Your task to perform on an android device: Search for vegetarian restaurants on Maps Image 0: 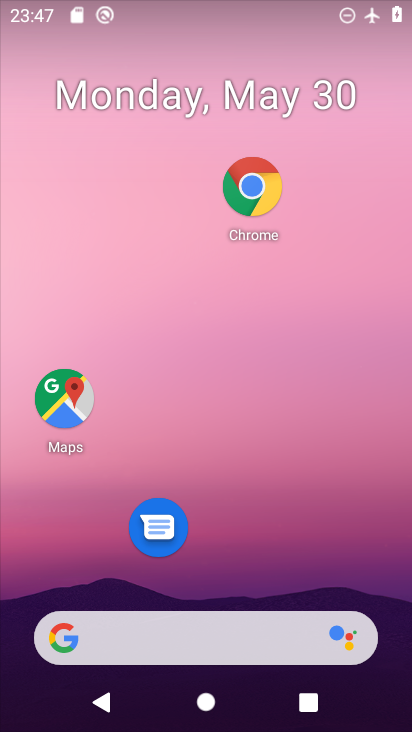
Step 0: click (72, 392)
Your task to perform on an android device: Search for vegetarian restaurants on Maps Image 1: 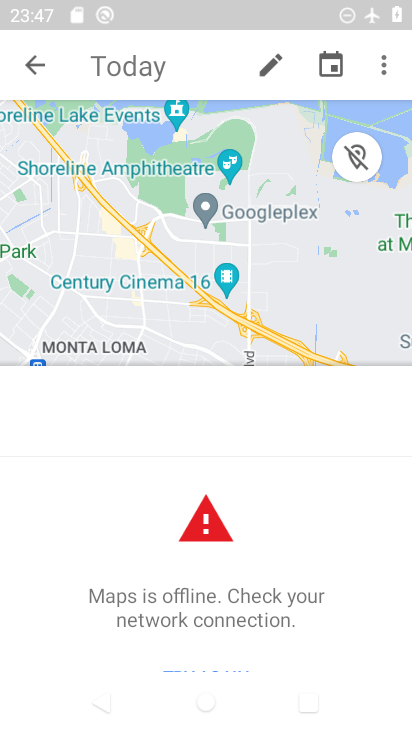
Step 1: click (18, 67)
Your task to perform on an android device: Search for vegetarian restaurants on Maps Image 2: 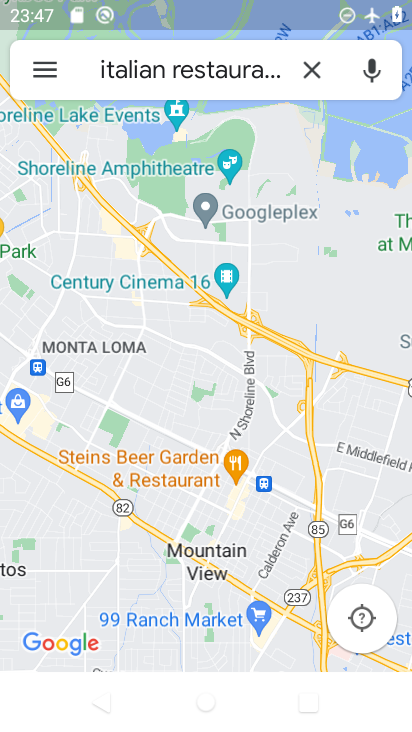
Step 2: click (319, 61)
Your task to perform on an android device: Search for vegetarian restaurants on Maps Image 3: 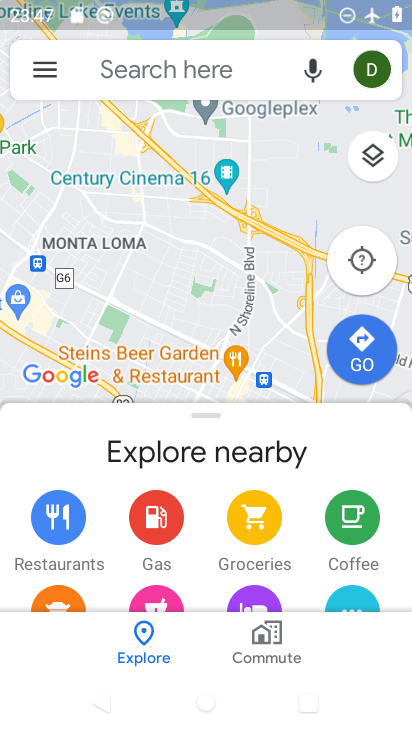
Step 3: click (148, 73)
Your task to perform on an android device: Search for vegetarian restaurants on Maps Image 4: 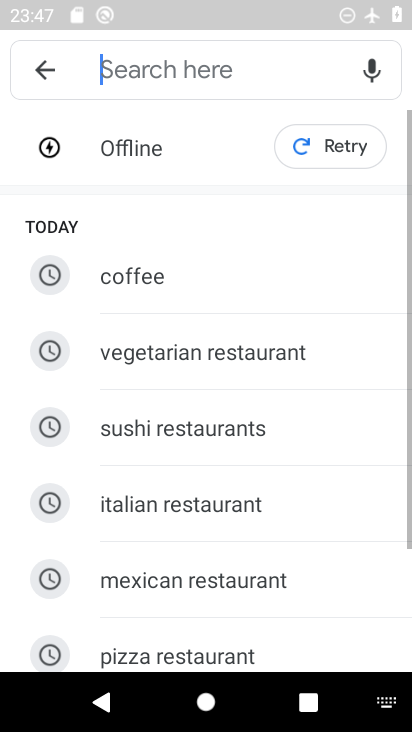
Step 4: type " vegetarian restaurants"
Your task to perform on an android device: Search for vegetarian restaurants on Maps Image 5: 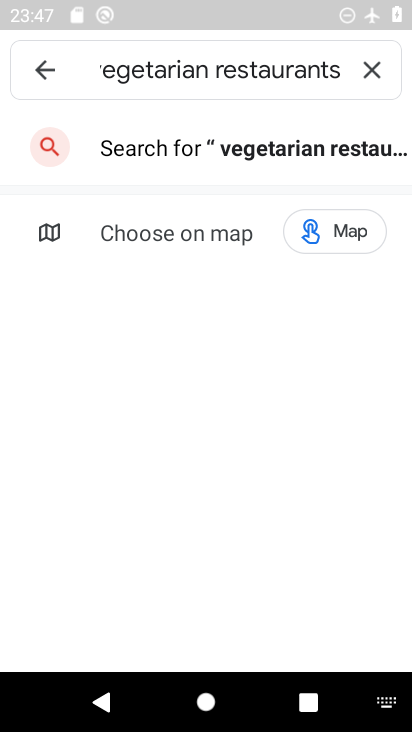
Step 5: click (280, 143)
Your task to perform on an android device: Search for vegetarian restaurants on Maps Image 6: 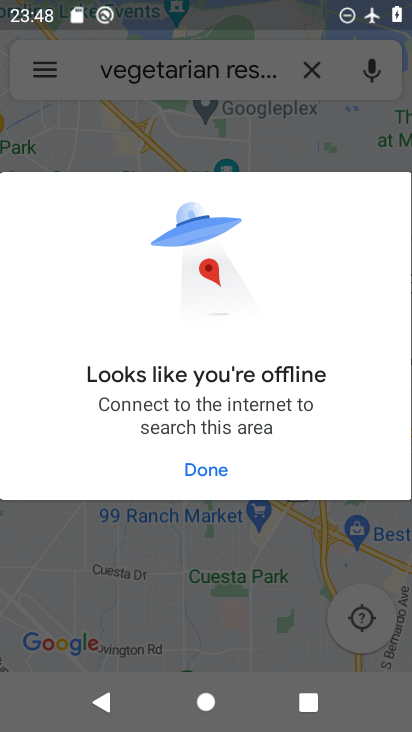
Step 6: click (209, 468)
Your task to perform on an android device: Search for vegetarian restaurants on Maps Image 7: 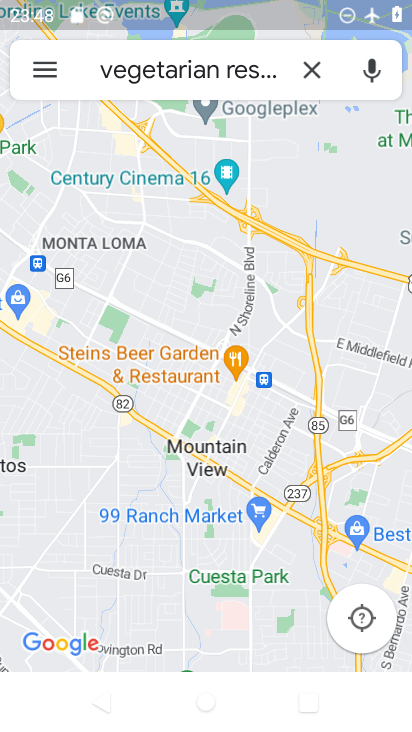
Step 7: task complete